Your task to perform on an android device: turn on wifi Image 0: 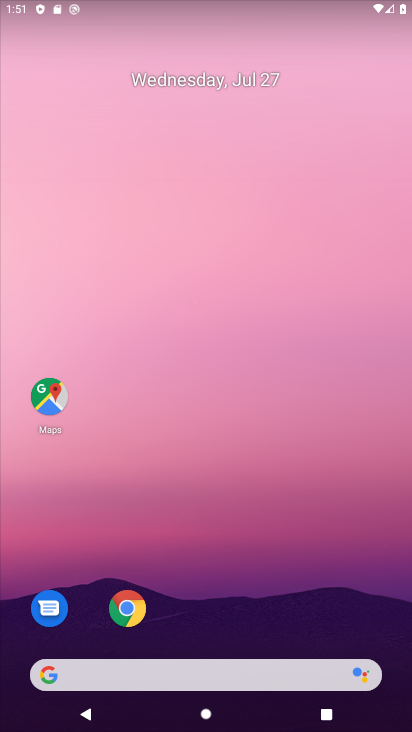
Step 0: click (301, 10)
Your task to perform on an android device: turn on wifi Image 1: 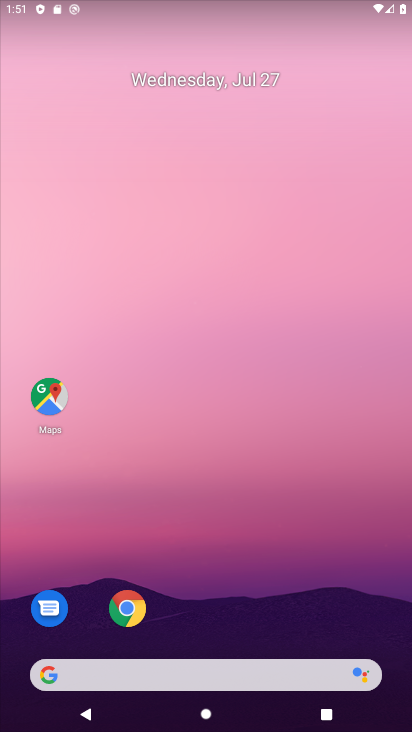
Step 1: drag from (81, 438) to (83, 697)
Your task to perform on an android device: turn on wifi Image 2: 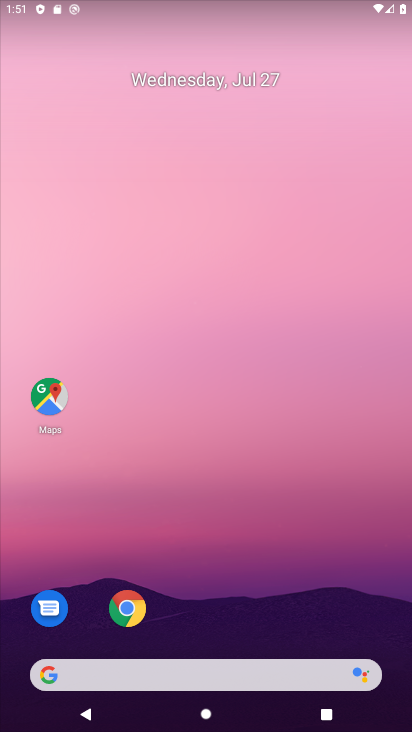
Step 2: drag from (347, 3) to (251, 347)
Your task to perform on an android device: turn on wifi Image 3: 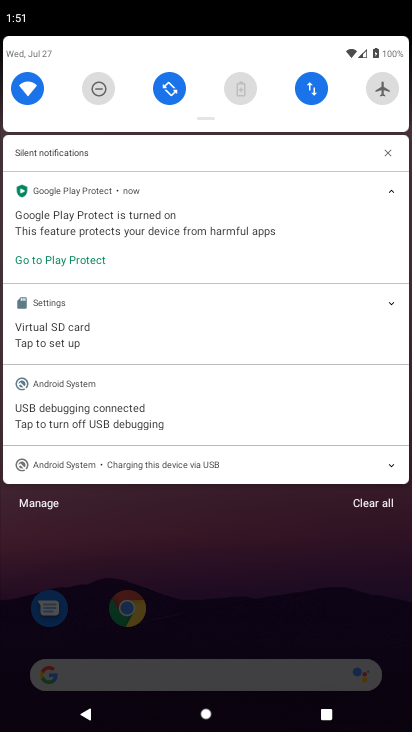
Step 3: click (251, 347)
Your task to perform on an android device: turn on wifi Image 4: 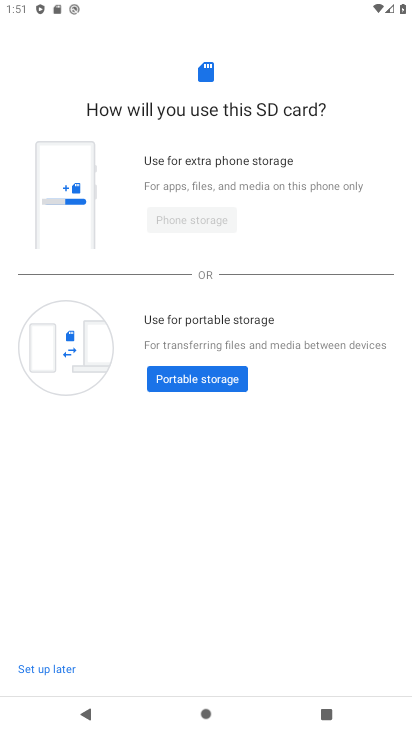
Step 4: task complete